Your task to perform on an android device: Do I have any events tomorrow? Image 0: 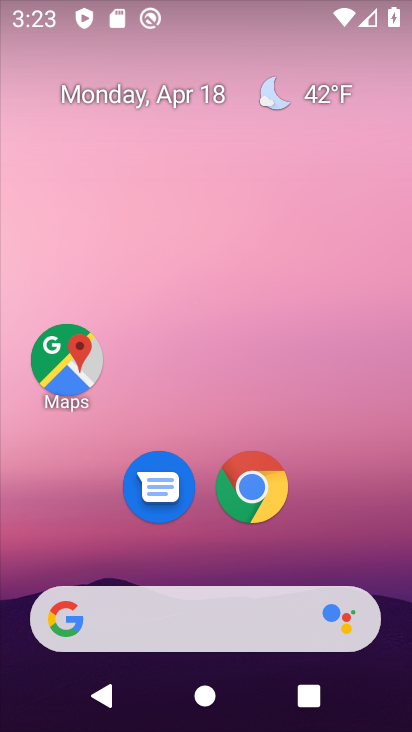
Step 0: drag from (208, 567) to (199, 50)
Your task to perform on an android device: Do I have any events tomorrow? Image 1: 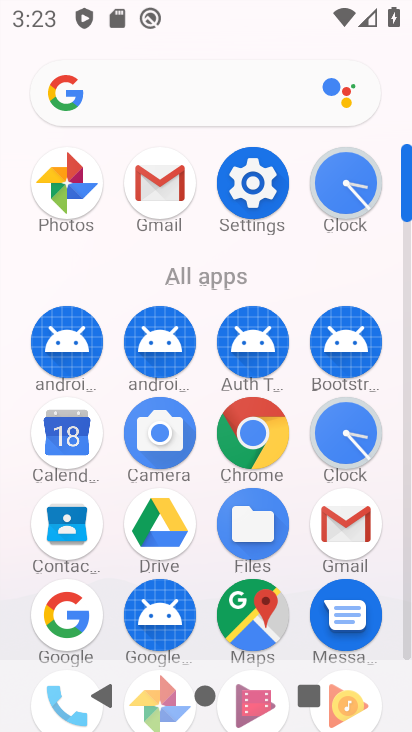
Step 1: click (70, 449)
Your task to perform on an android device: Do I have any events tomorrow? Image 2: 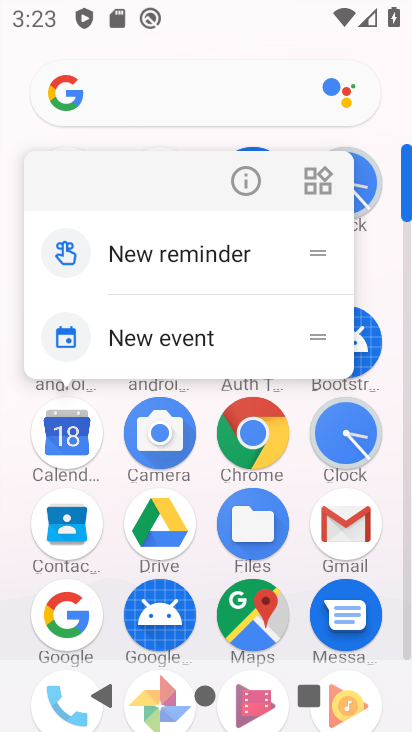
Step 2: click (71, 445)
Your task to perform on an android device: Do I have any events tomorrow? Image 3: 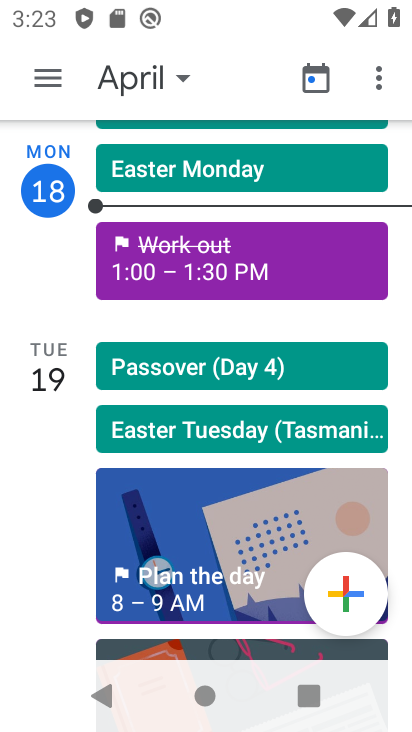
Step 3: click (63, 87)
Your task to perform on an android device: Do I have any events tomorrow? Image 4: 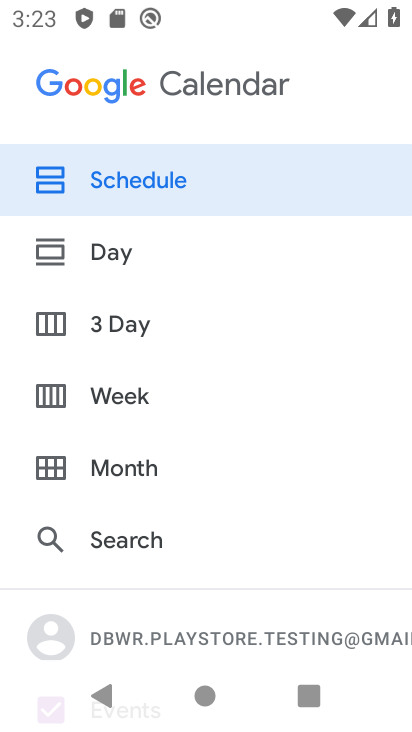
Step 4: drag from (210, 538) to (218, 139)
Your task to perform on an android device: Do I have any events tomorrow? Image 5: 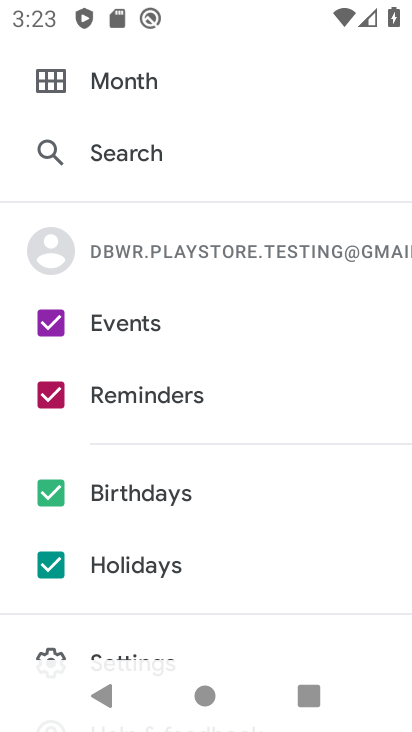
Step 5: click (56, 401)
Your task to perform on an android device: Do I have any events tomorrow? Image 6: 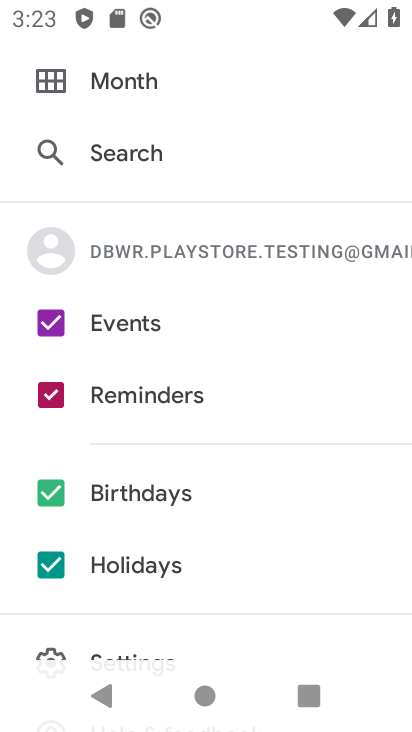
Step 6: click (55, 495)
Your task to perform on an android device: Do I have any events tomorrow? Image 7: 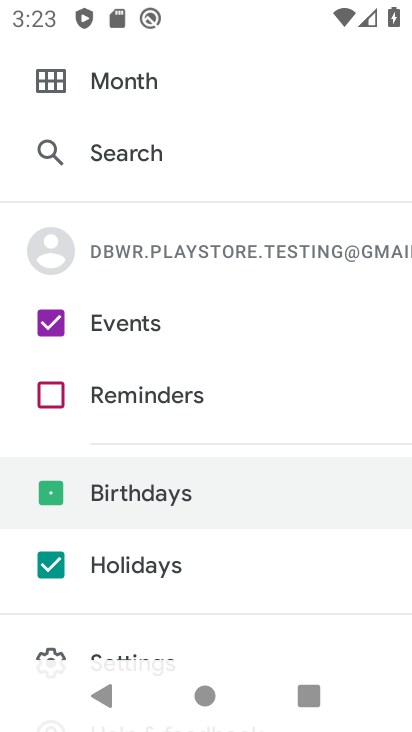
Step 7: click (53, 558)
Your task to perform on an android device: Do I have any events tomorrow? Image 8: 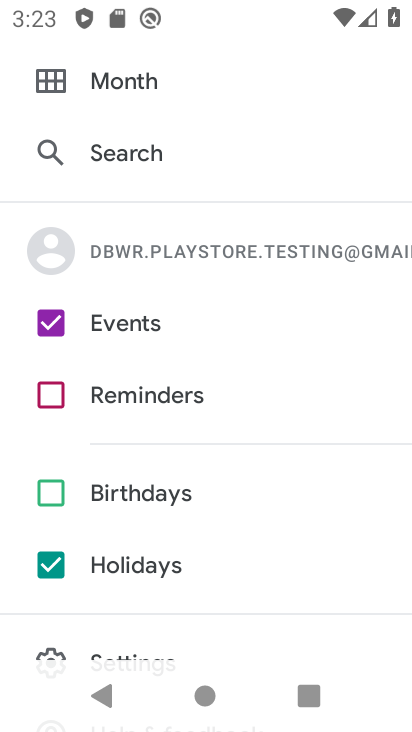
Step 8: click (61, 570)
Your task to perform on an android device: Do I have any events tomorrow? Image 9: 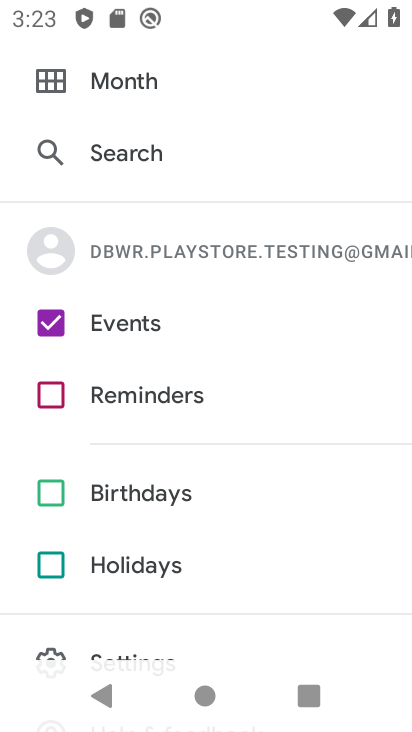
Step 9: task complete